Your task to perform on an android device: turn on wifi Image 0: 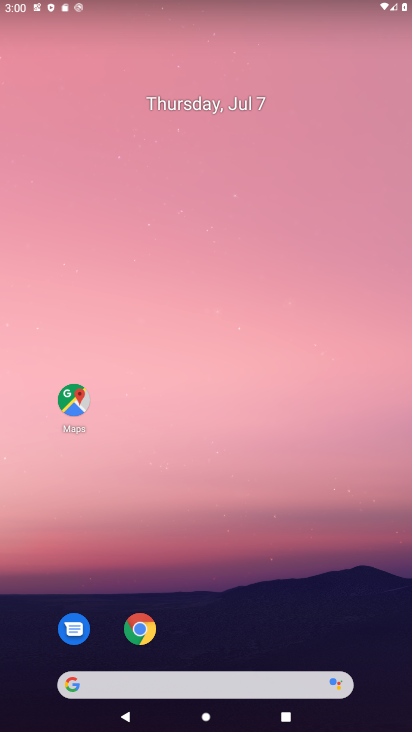
Step 0: drag from (235, 8) to (221, 649)
Your task to perform on an android device: turn on wifi Image 1: 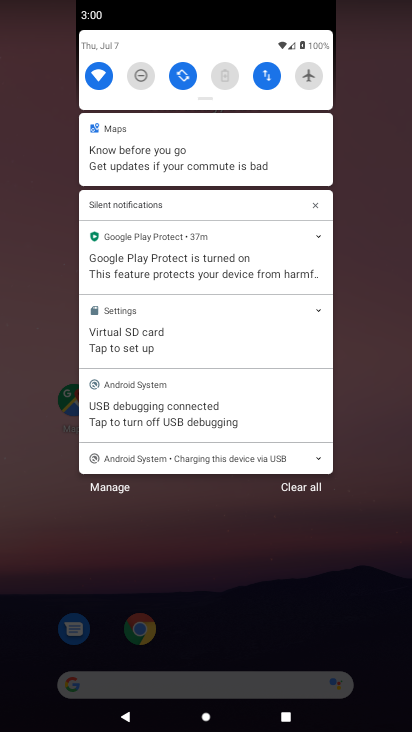
Step 1: task complete